Your task to perform on an android device: Open calendar and show me the third week of next month Image 0: 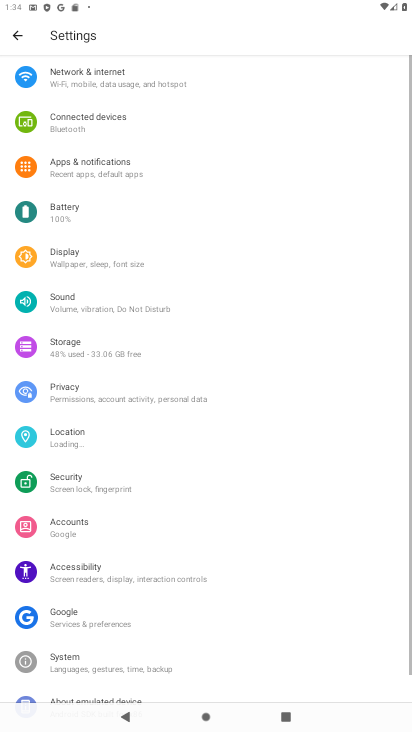
Step 0: press home button
Your task to perform on an android device: Open calendar and show me the third week of next month Image 1: 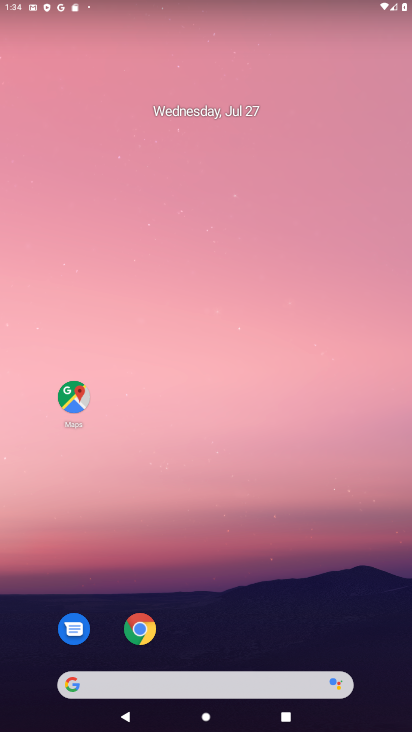
Step 1: drag from (238, 653) to (403, 54)
Your task to perform on an android device: Open calendar and show me the third week of next month Image 2: 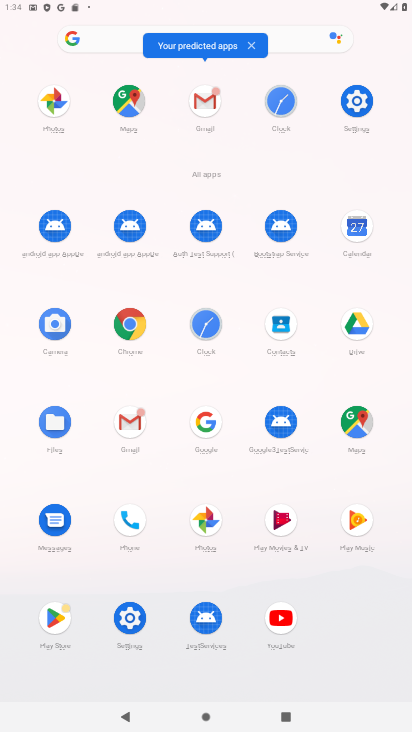
Step 2: click (361, 268)
Your task to perform on an android device: Open calendar and show me the third week of next month Image 3: 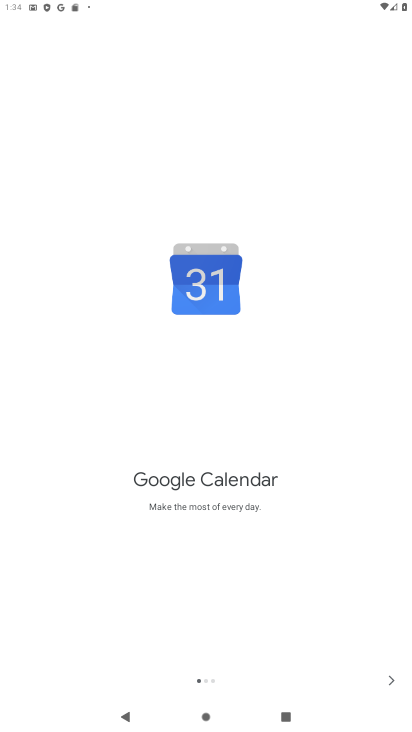
Step 3: click (384, 665)
Your task to perform on an android device: Open calendar and show me the third week of next month Image 4: 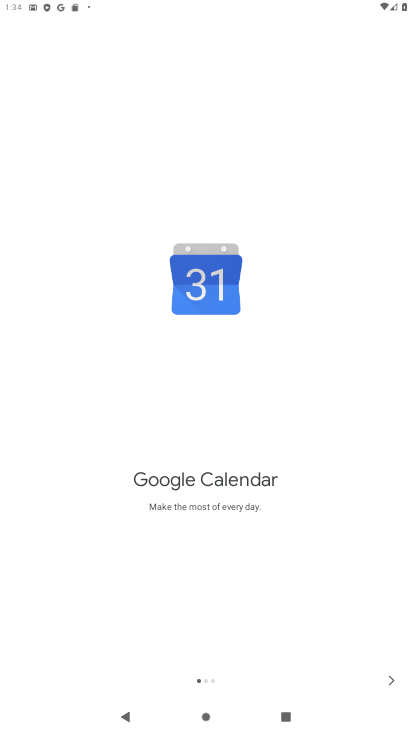
Step 4: click (384, 665)
Your task to perform on an android device: Open calendar and show me the third week of next month Image 5: 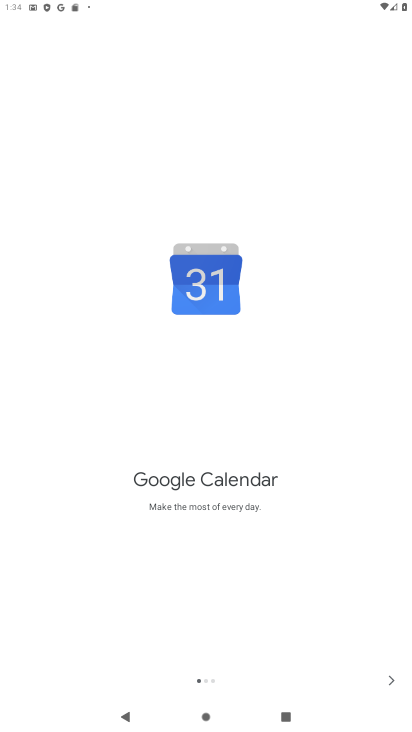
Step 5: click (384, 665)
Your task to perform on an android device: Open calendar and show me the third week of next month Image 6: 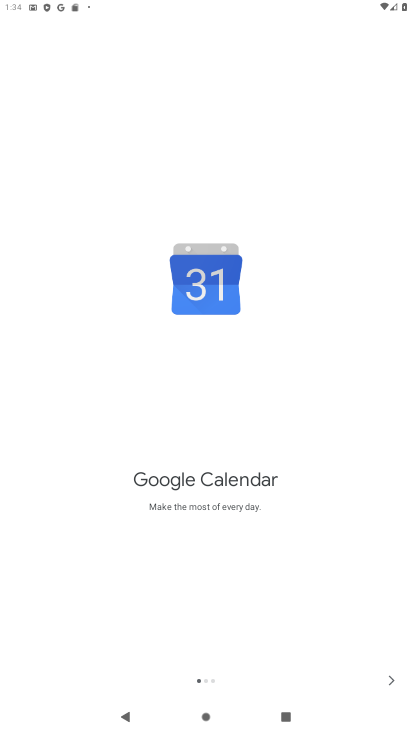
Step 6: click (391, 676)
Your task to perform on an android device: Open calendar and show me the third week of next month Image 7: 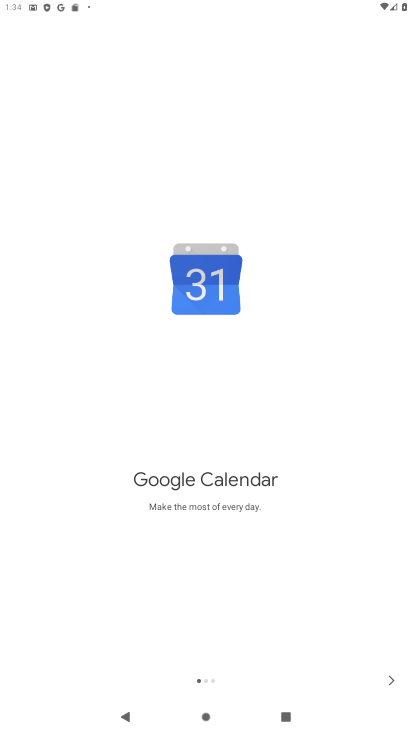
Step 7: click (391, 676)
Your task to perform on an android device: Open calendar and show me the third week of next month Image 8: 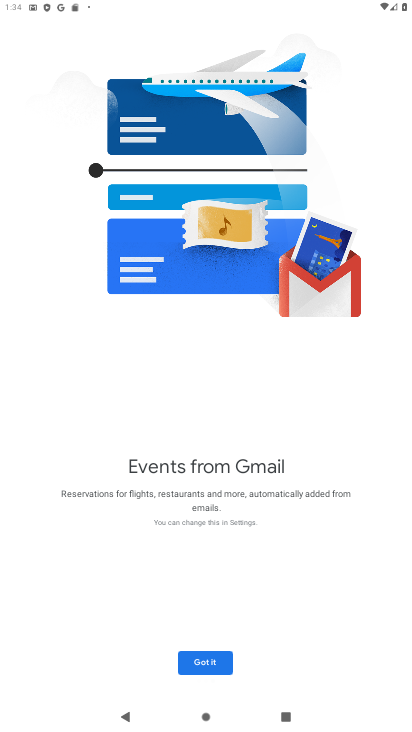
Step 8: click (391, 676)
Your task to perform on an android device: Open calendar and show me the third week of next month Image 9: 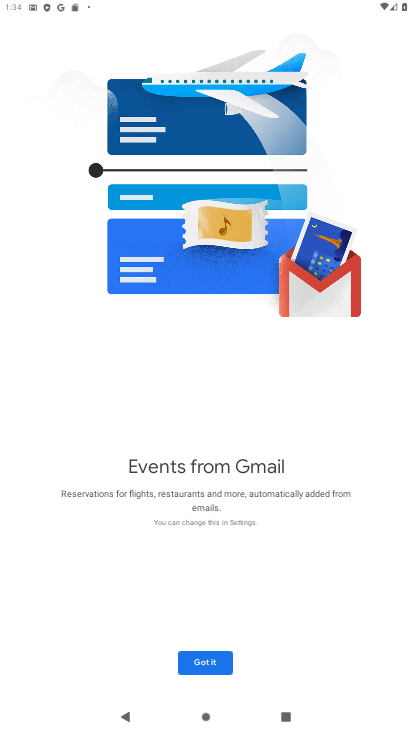
Step 9: click (391, 676)
Your task to perform on an android device: Open calendar and show me the third week of next month Image 10: 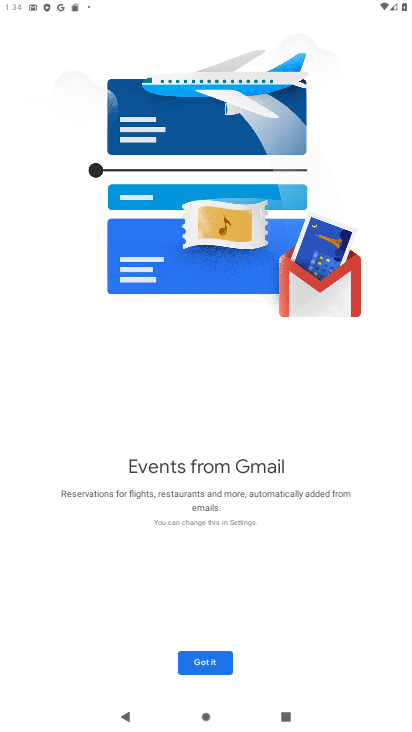
Step 10: click (200, 653)
Your task to perform on an android device: Open calendar and show me the third week of next month Image 11: 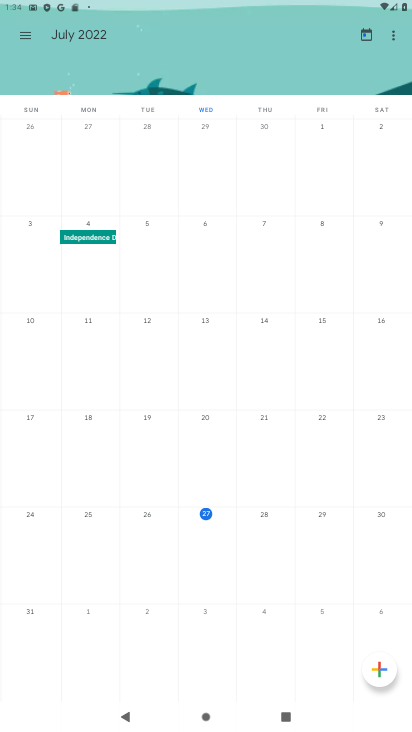
Step 11: task complete